Your task to perform on an android device: Is it going to rain today? Image 0: 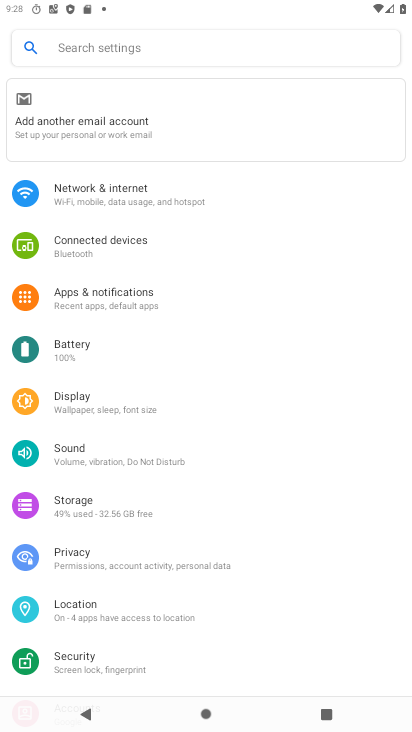
Step 0: press home button
Your task to perform on an android device: Is it going to rain today? Image 1: 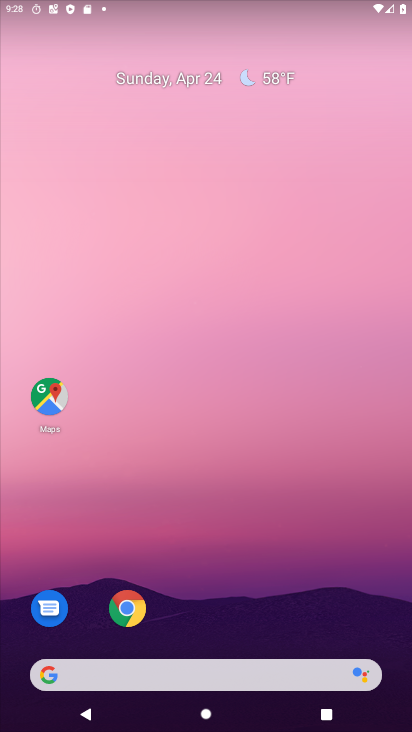
Step 1: click (285, 672)
Your task to perform on an android device: Is it going to rain today? Image 2: 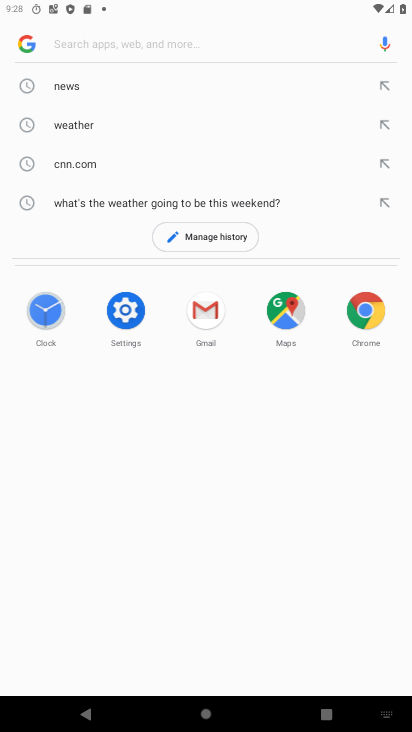
Step 2: click (71, 118)
Your task to perform on an android device: Is it going to rain today? Image 3: 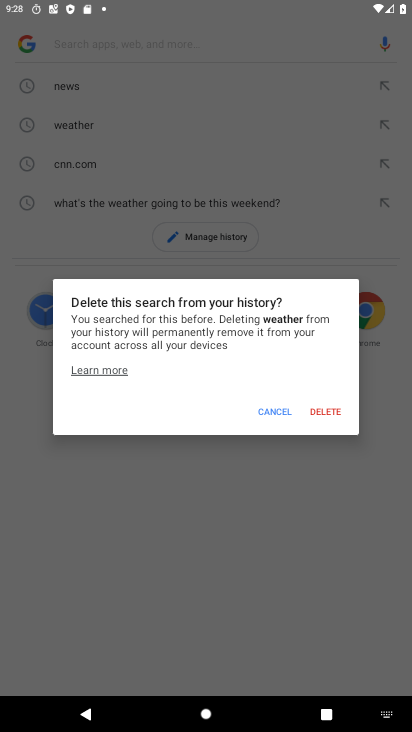
Step 3: click (281, 403)
Your task to perform on an android device: Is it going to rain today? Image 4: 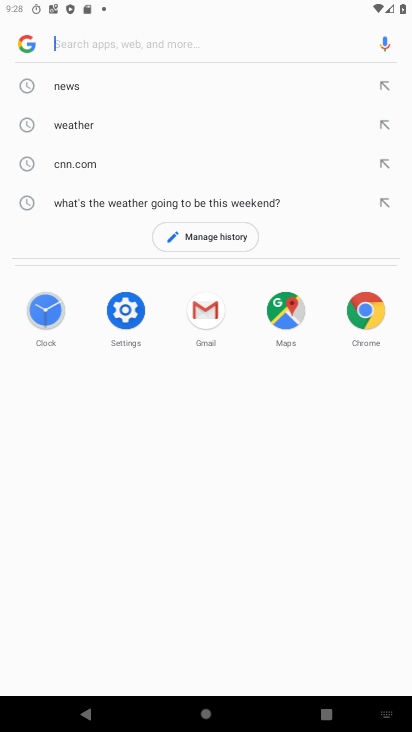
Step 4: click (99, 126)
Your task to perform on an android device: Is it going to rain today? Image 5: 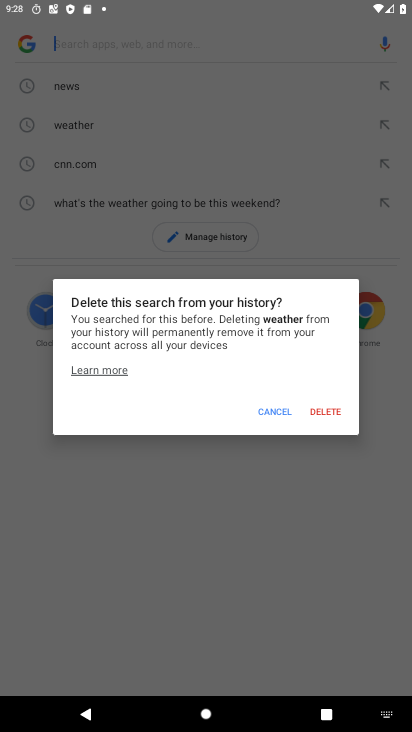
Step 5: click (269, 408)
Your task to perform on an android device: Is it going to rain today? Image 6: 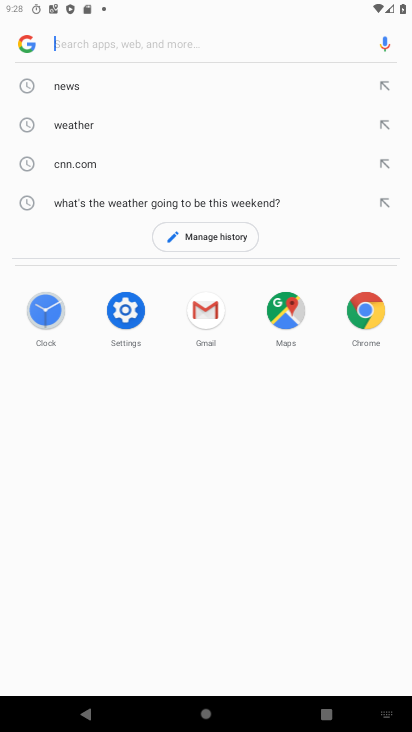
Step 6: click (83, 126)
Your task to perform on an android device: Is it going to rain today? Image 7: 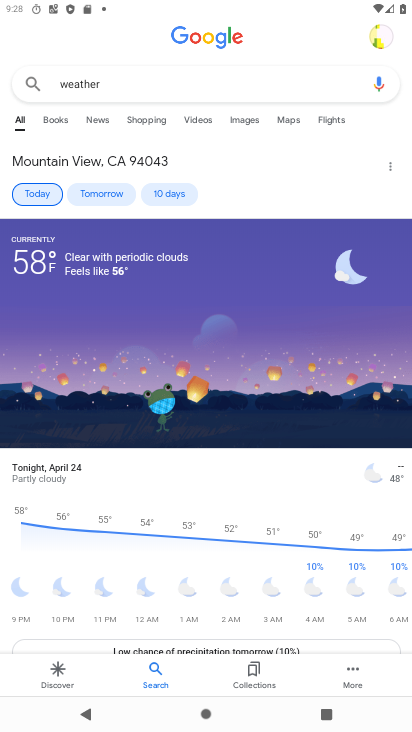
Step 7: task complete